Your task to perform on an android device: Open Reddit.com Image 0: 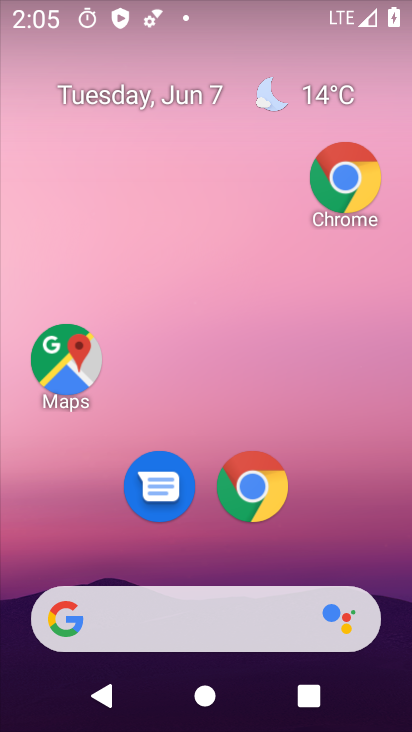
Step 0: click (210, 626)
Your task to perform on an android device: Open Reddit.com Image 1: 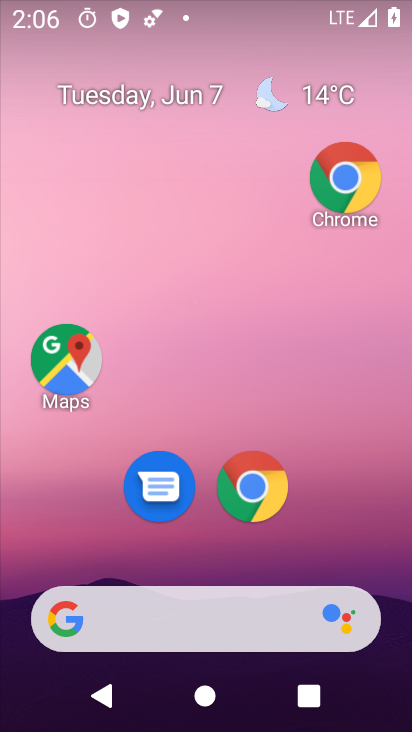
Step 1: type "Reddit.com"
Your task to perform on an android device: Open Reddit.com Image 2: 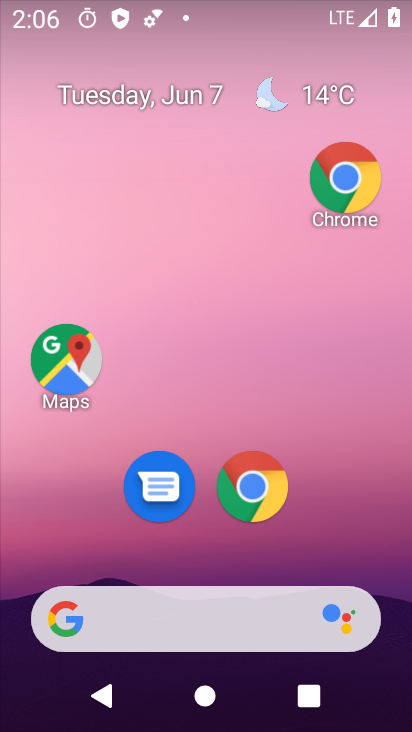
Step 2: click (111, 605)
Your task to perform on an android device: Open Reddit.com Image 3: 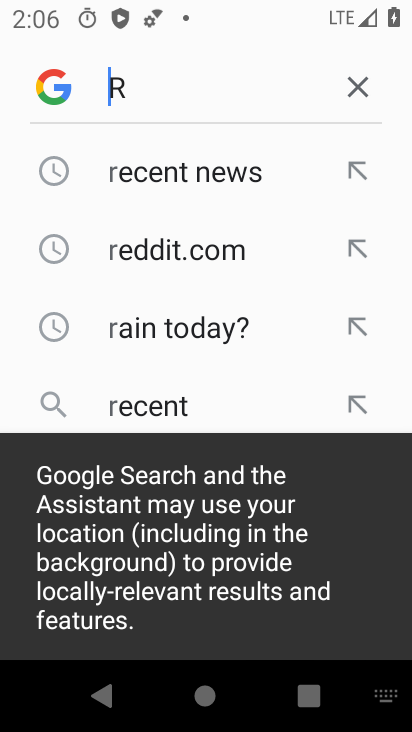
Step 3: click (151, 82)
Your task to perform on an android device: Open Reddit.com Image 4: 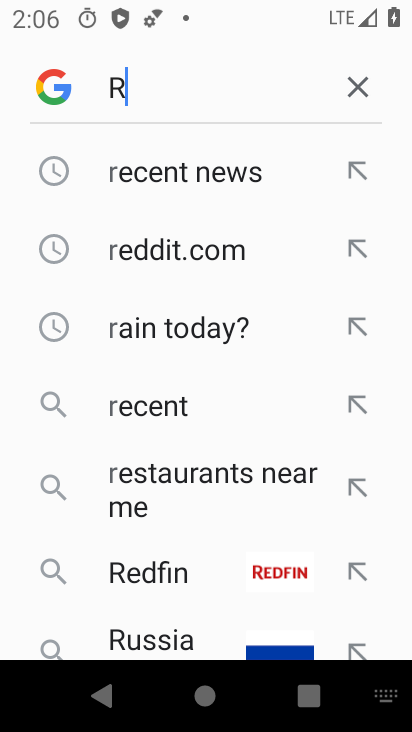
Step 4: type "eddit.com"
Your task to perform on an android device: Open Reddit.com Image 5: 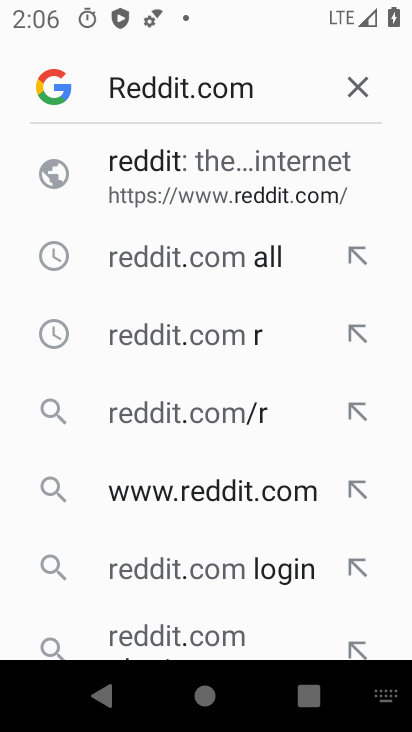
Step 5: click (188, 205)
Your task to perform on an android device: Open Reddit.com Image 6: 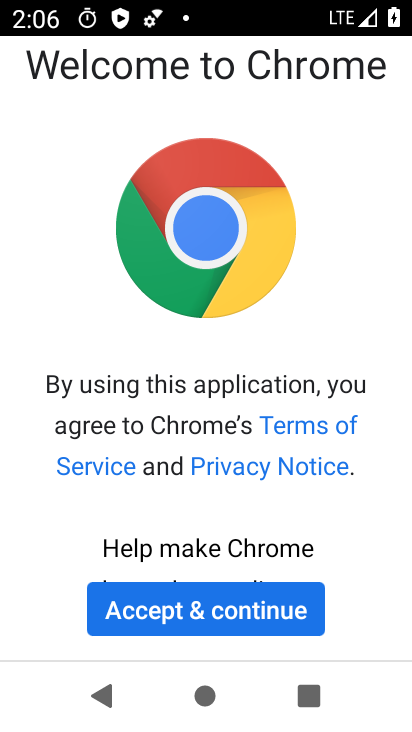
Step 6: click (222, 600)
Your task to perform on an android device: Open Reddit.com Image 7: 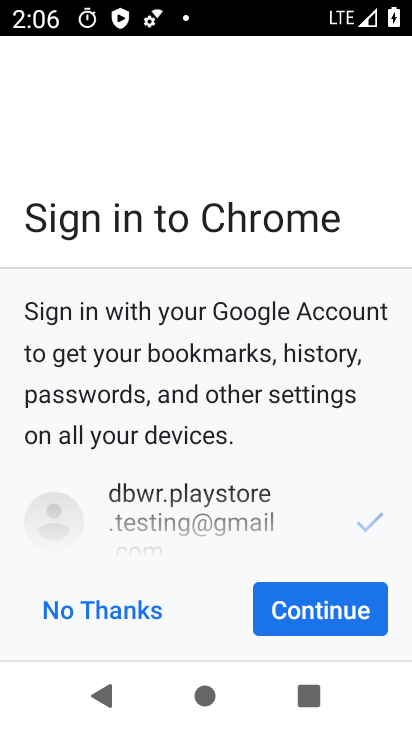
Step 7: click (262, 611)
Your task to perform on an android device: Open Reddit.com Image 8: 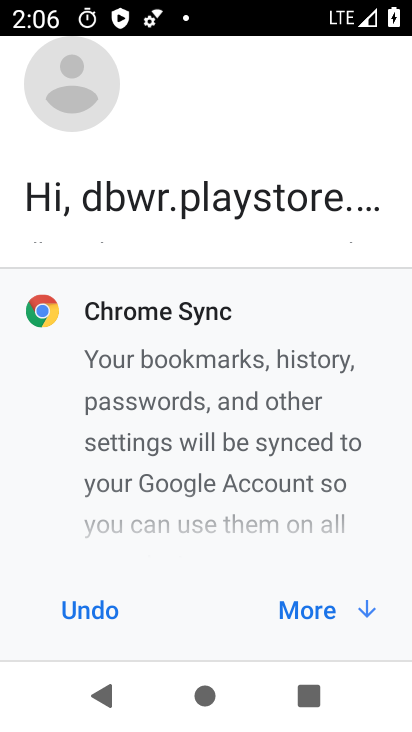
Step 8: click (269, 609)
Your task to perform on an android device: Open Reddit.com Image 9: 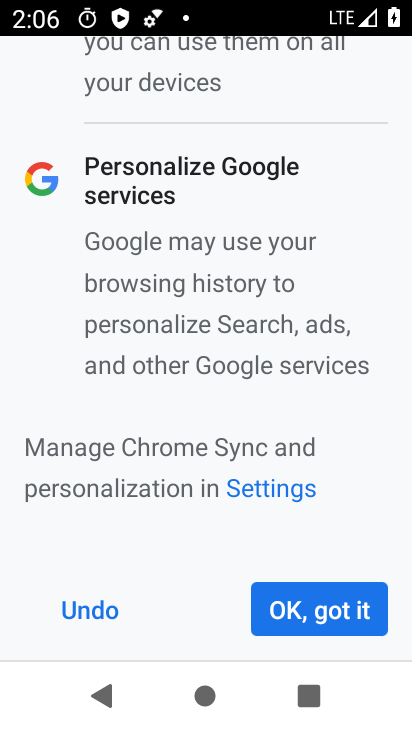
Step 9: click (353, 631)
Your task to perform on an android device: Open Reddit.com Image 10: 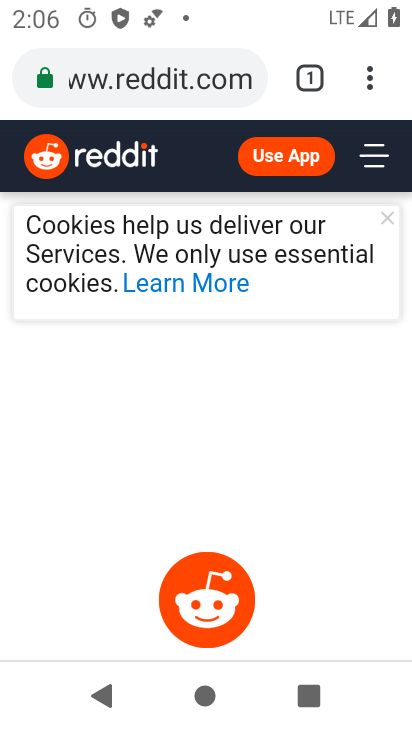
Step 10: task complete